Your task to perform on an android device: turn on the 12-hour format for clock Image 0: 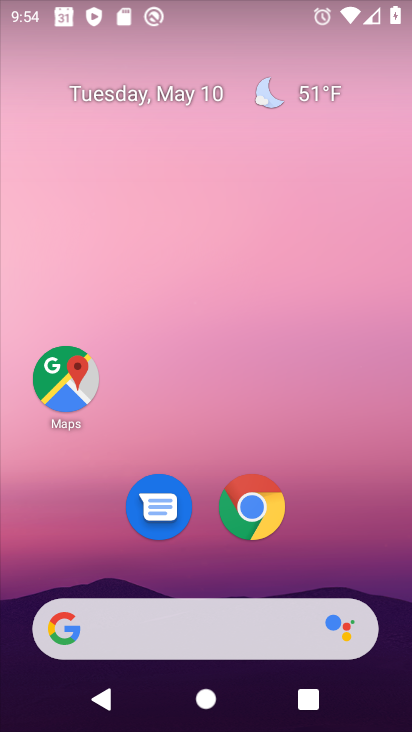
Step 0: drag from (203, 560) to (163, 14)
Your task to perform on an android device: turn on the 12-hour format for clock Image 1: 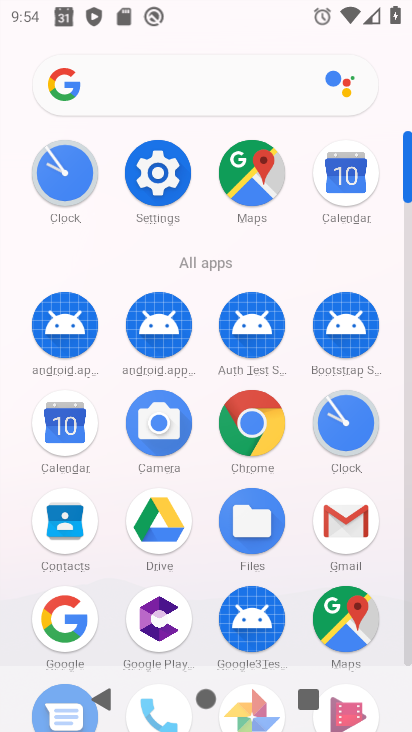
Step 1: click (154, 188)
Your task to perform on an android device: turn on the 12-hour format for clock Image 2: 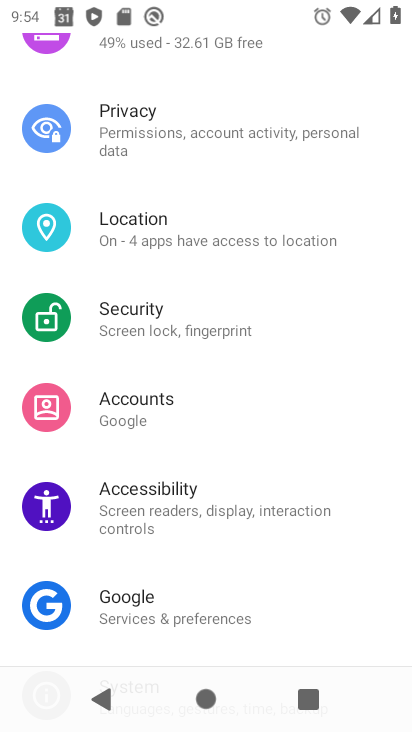
Step 2: task complete